Your task to perform on an android device: Open the Play Movies app and select the watchlist tab. Image 0: 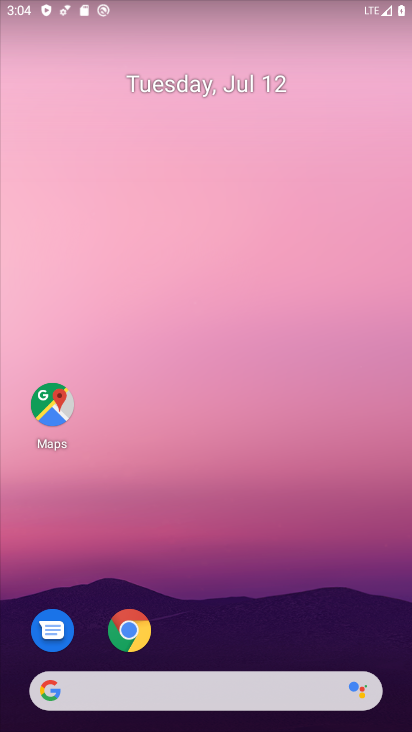
Step 0: drag from (212, 685) to (181, 13)
Your task to perform on an android device: Open the Play Movies app and select the watchlist tab. Image 1: 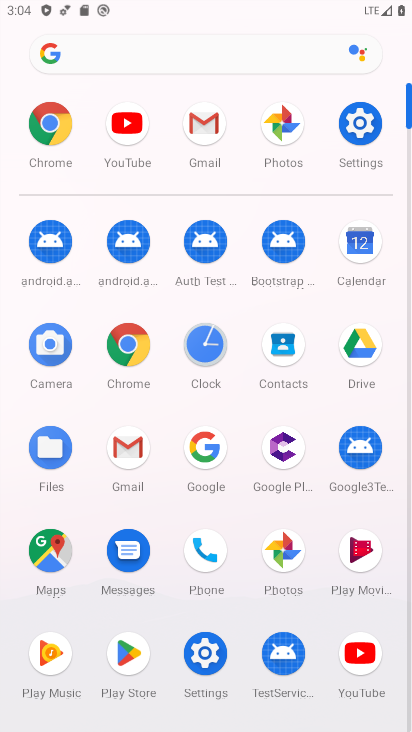
Step 1: click (359, 557)
Your task to perform on an android device: Open the Play Movies app and select the watchlist tab. Image 2: 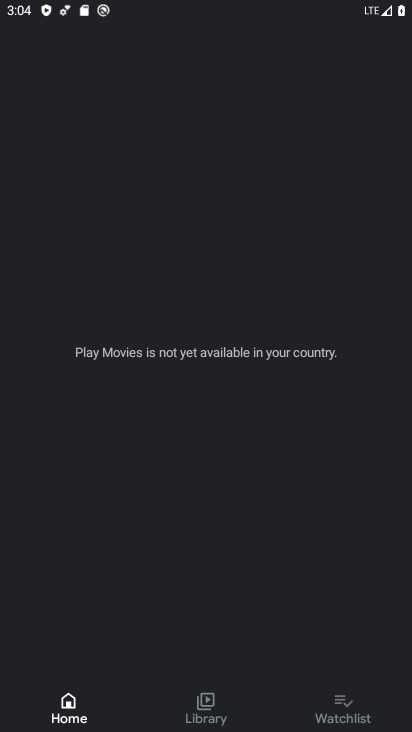
Step 2: click (344, 700)
Your task to perform on an android device: Open the Play Movies app and select the watchlist tab. Image 3: 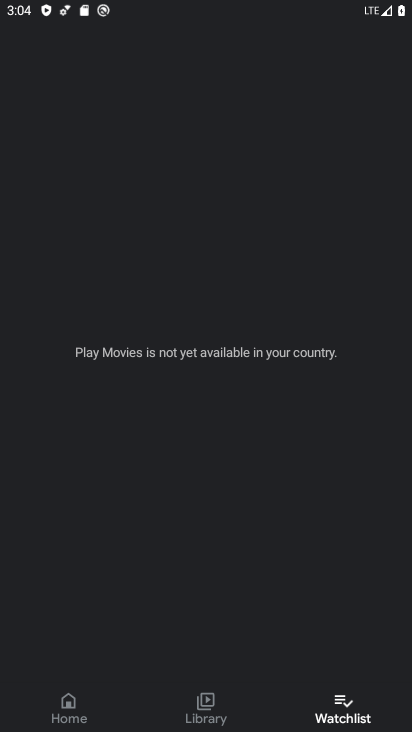
Step 3: task complete